Your task to perform on an android device: toggle improve location accuracy Image 0: 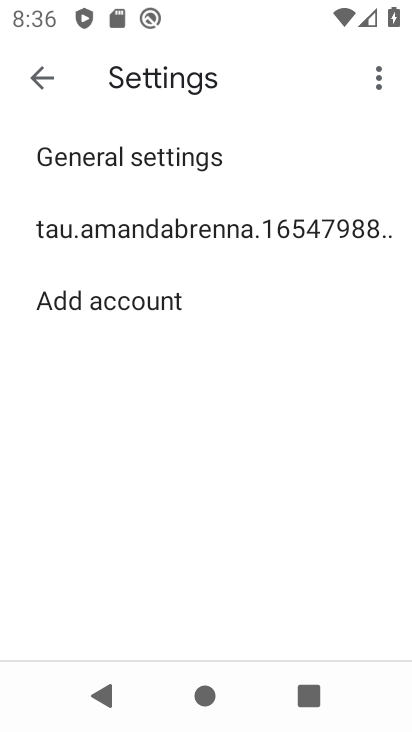
Step 0: click (156, 232)
Your task to perform on an android device: toggle improve location accuracy Image 1: 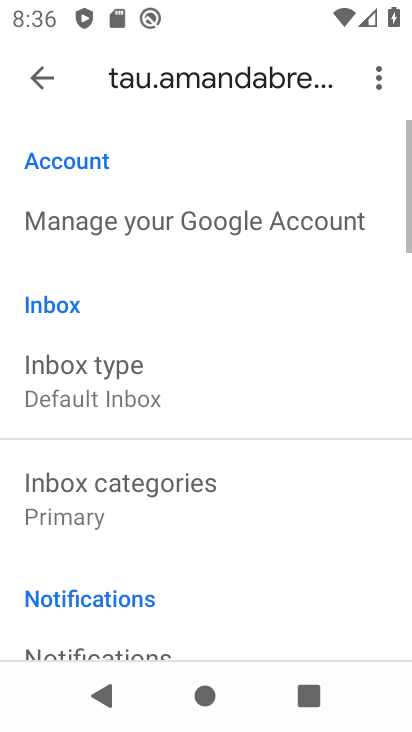
Step 1: drag from (170, 619) to (246, 56)
Your task to perform on an android device: toggle improve location accuracy Image 2: 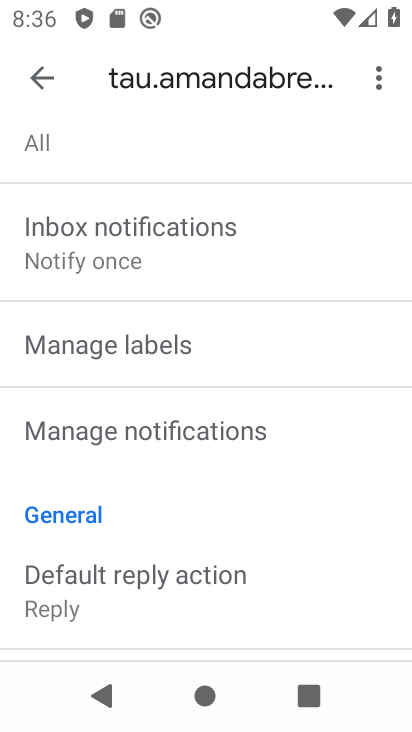
Step 2: drag from (189, 648) to (257, 163)
Your task to perform on an android device: toggle improve location accuracy Image 3: 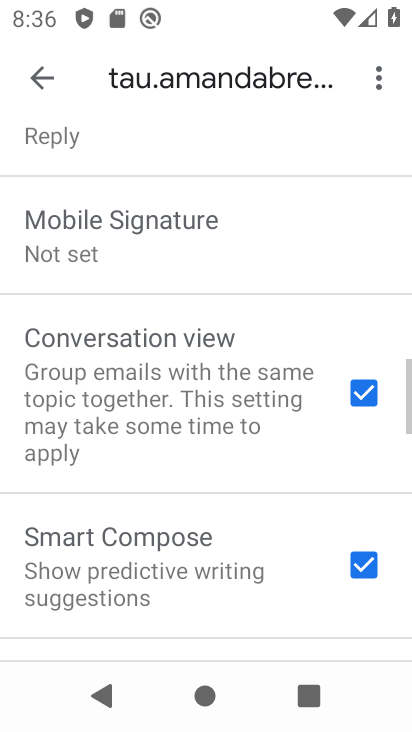
Step 3: click (46, 69)
Your task to perform on an android device: toggle improve location accuracy Image 4: 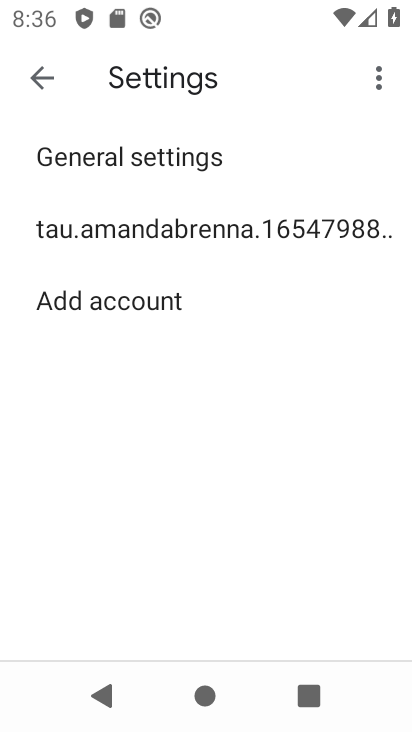
Step 4: press back button
Your task to perform on an android device: toggle improve location accuracy Image 5: 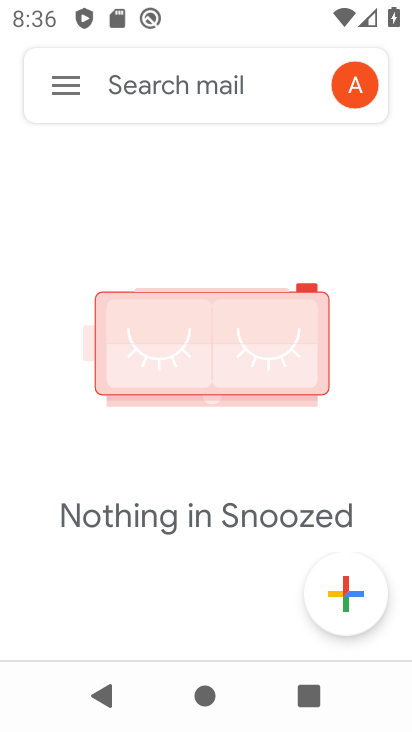
Step 5: press back button
Your task to perform on an android device: toggle improve location accuracy Image 6: 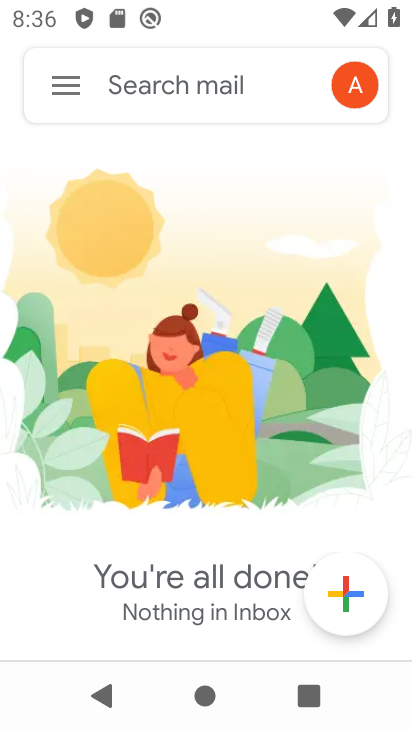
Step 6: press back button
Your task to perform on an android device: toggle improve location accuracy Image 7: 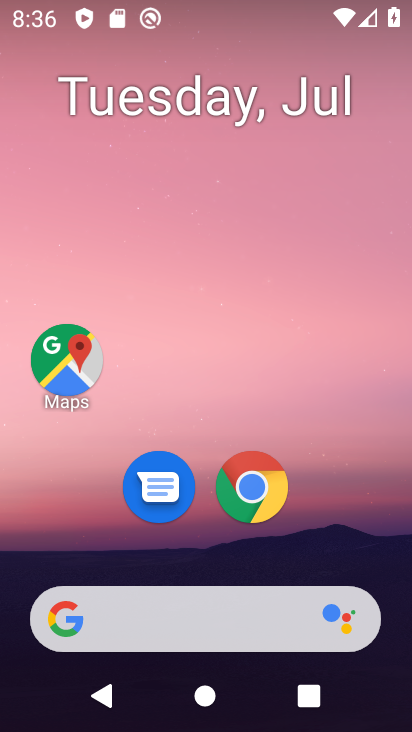
Step 7: drag from (222, 569) to (229, 66)
Your task to perform on an android device: toggle improve location accuracy Image 8: 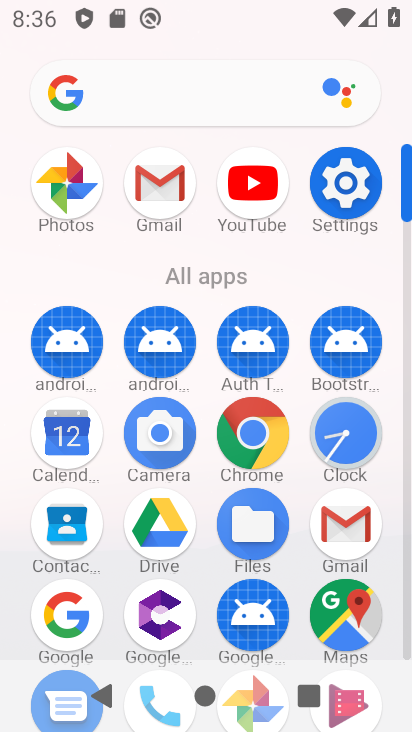
Step 8: click (346, 189)
Your task to perform on an android device: toggle improve location accuracy Image 9: 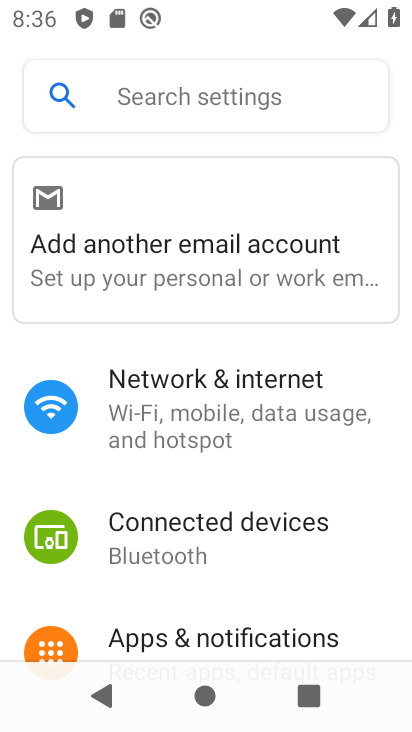
Step 9: drag from (201, 598) to (289, 50)
Your task to perform on an android device: toggle improve location accuracy Image 10: 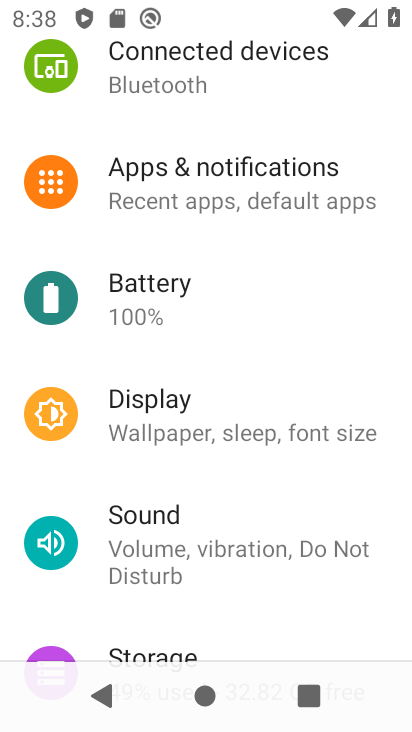
Step 10: drag from (149, 617) to (233, 140)
Your task to perform on an android device: toggle improve location accuracy Image 11: 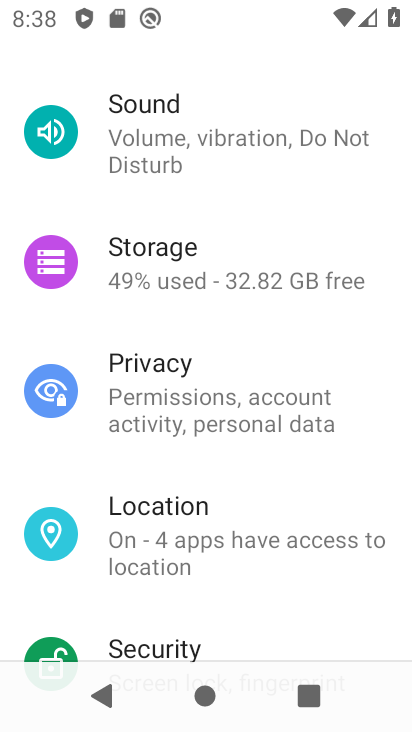
Step 11: click (174, 545)
Your task to perform on an android device: toggle improve location accuracy Image 12: 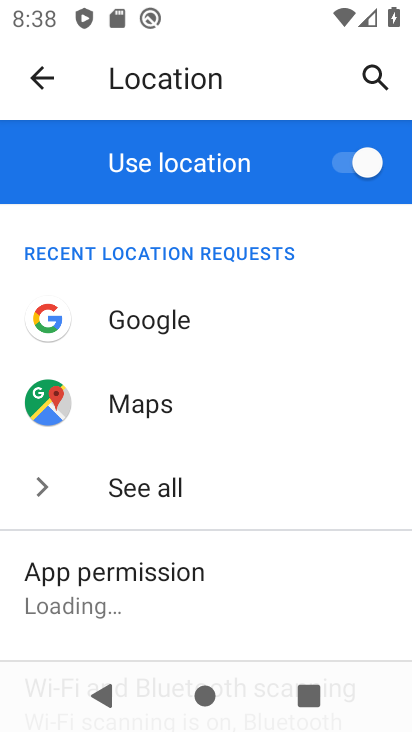
Step 12: drag from (160, 517) to (277, 5)
Your task to perform on an android device: toggle improve location accuracy Image 13: 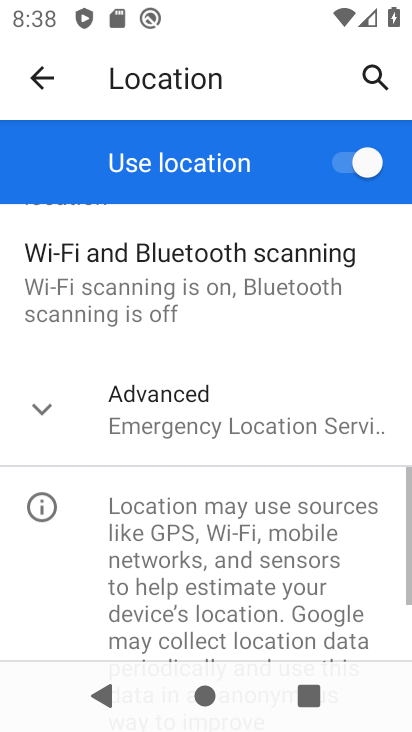
Step 13: click (196, 431)
Your task to perform on an android device: toggle improve location accuracy Image 14: 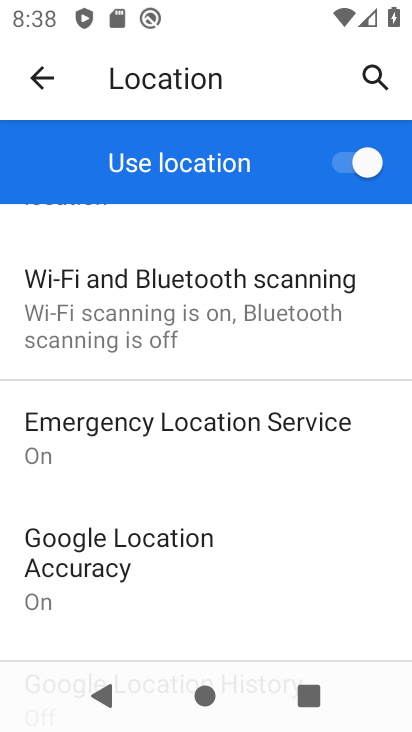
Step 14: click (138, 558)
Your task to perform on an android device: toggle improve location accuracy Image 15: 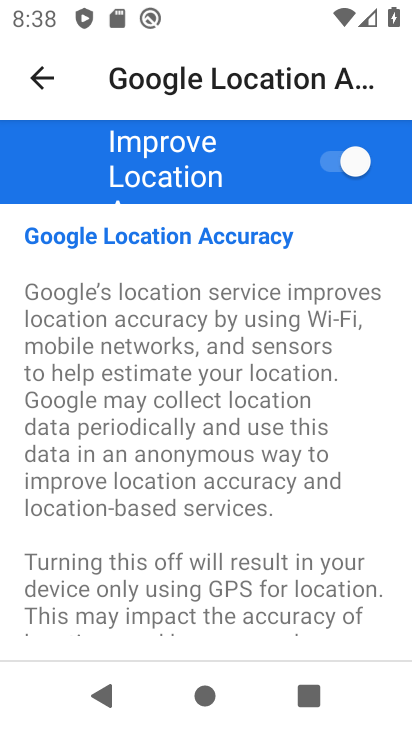
Step 15: click (344, 161)
Your task to perform on an android device: toggle improve location accuracy Image 16: 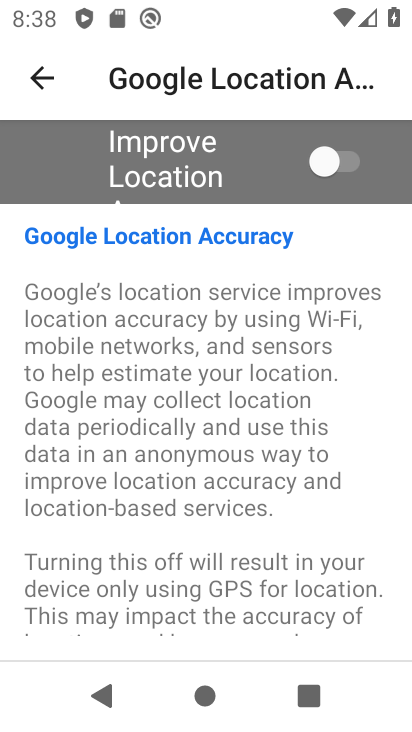
Step 16: task complete